Your task to perform on an android device: Open notification settings Image 0: 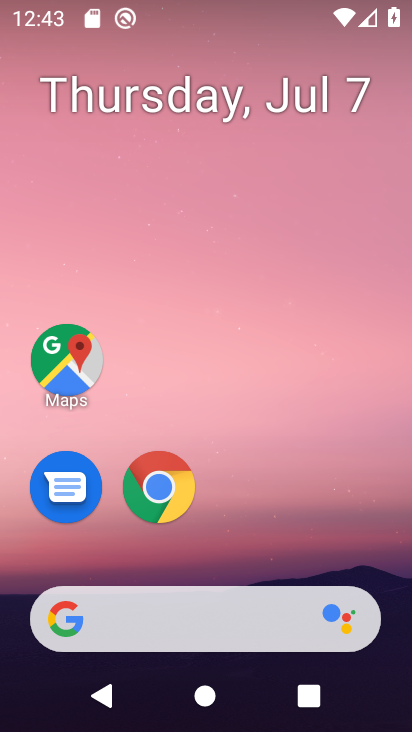
Step 0: drag from (315, 547) to (352, 108)
Your task to perform on an android device: Open notification settings Image 1: 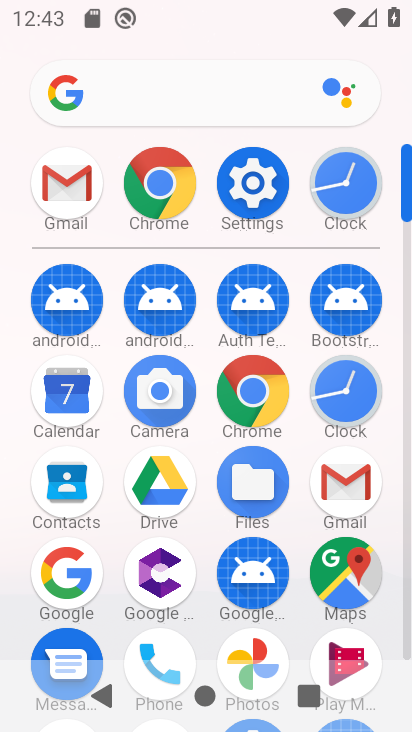
Step 1: click (265, 193)
Your task to perform on an android device: Open notification settings Image 2: 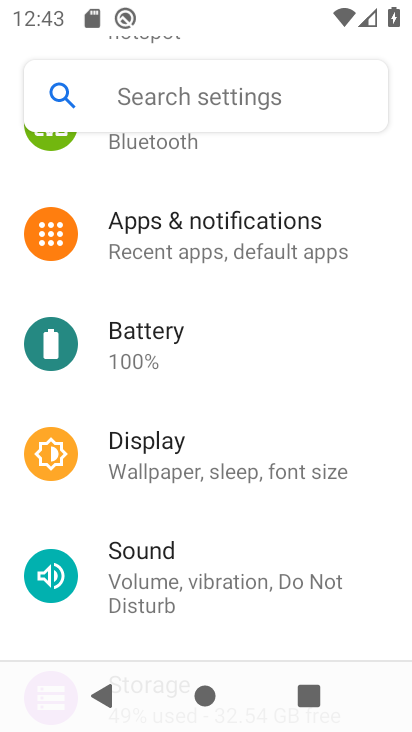
Step 2: drag from (353, 297) to (362, 472)
Your task to perform on an android device: Open notification settings Image 3: 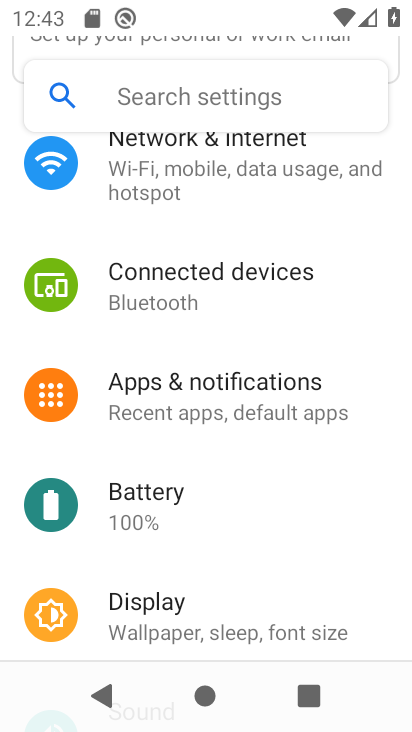
Step 3: drag from (351, 233) to (366, 457)
Your task to perform on an android device: Open notification settings Image 4: 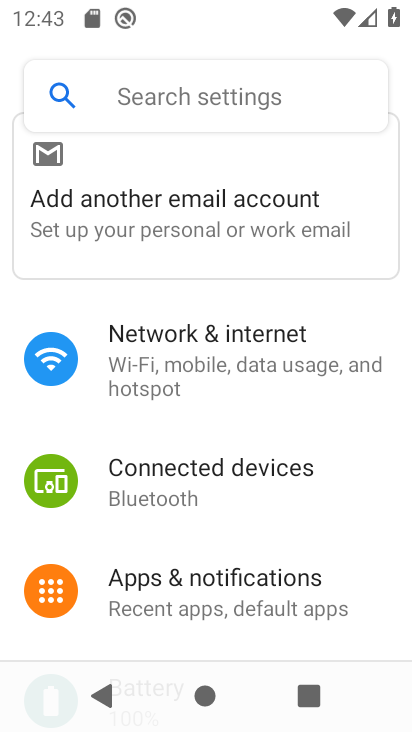
Step 4: drag from (366, 488) to (361, 338)
Your task to perform on an android device: Open notification settings Image 5: 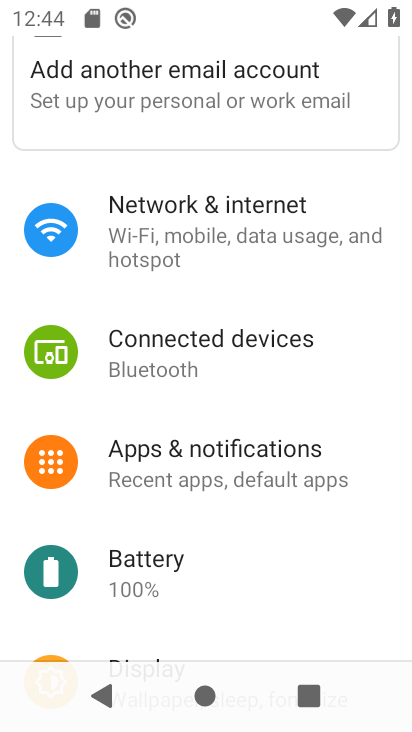
Step 5: drag from (355, 542) to (360, 383)
Your task to perform on an android device: Open notification settings Image 6: 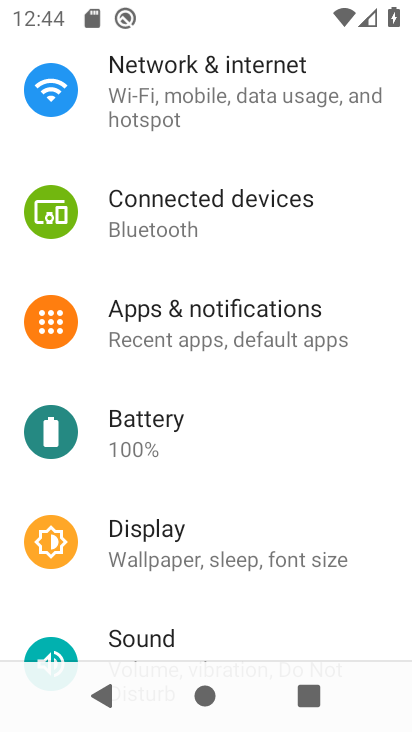
Step 6: drag from (350, 598) to (356, 431)
Your task to perform on an android device: Open notification settings Image 7: 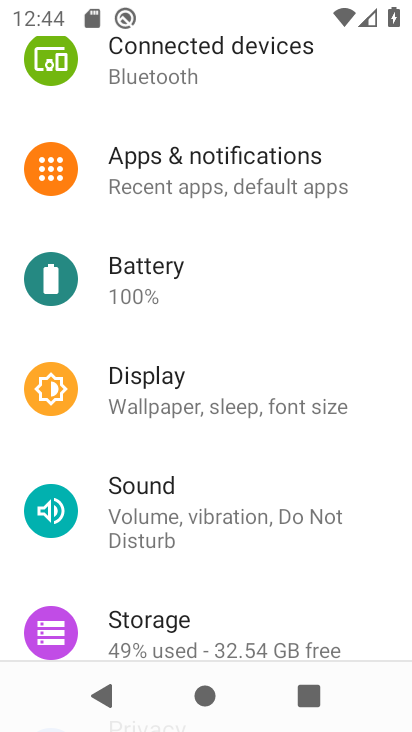
Step 7: click (209, 165)
Your task to perform on an android device: Open notification settings Image 8: 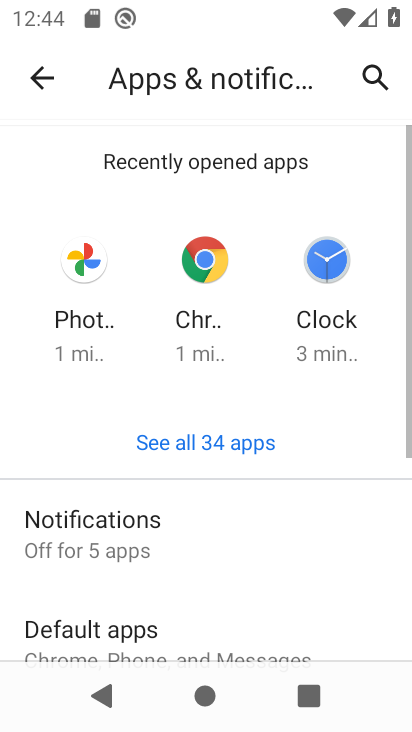
Step 8: drag from (353, 549) to (353, 388)
Your task to perform on an android device: Open notification settings Image 9: 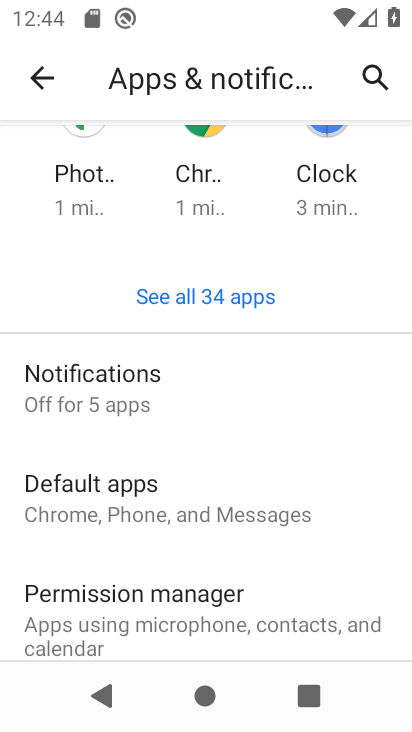
Step 9: drag from (342, 568) to (332, 419)
Your task to perform on an android device: Open notification settings Image 10: 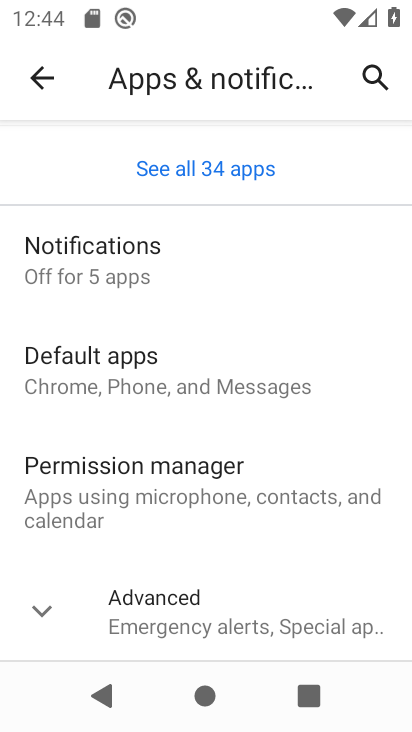
Step 10: click (151, 251)
Your task to perform on an android device: Open notification settings Image 11: 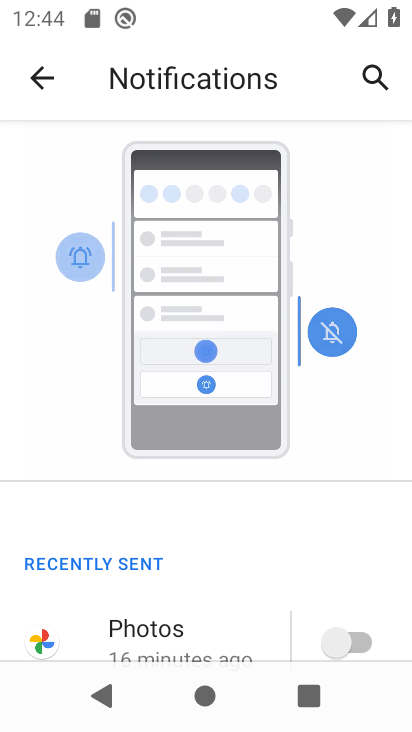
Step 11: task complete